Your task to perform on an android device: Add "amazon basics triple a" to the cart on costco, then select checkout. Image 0: 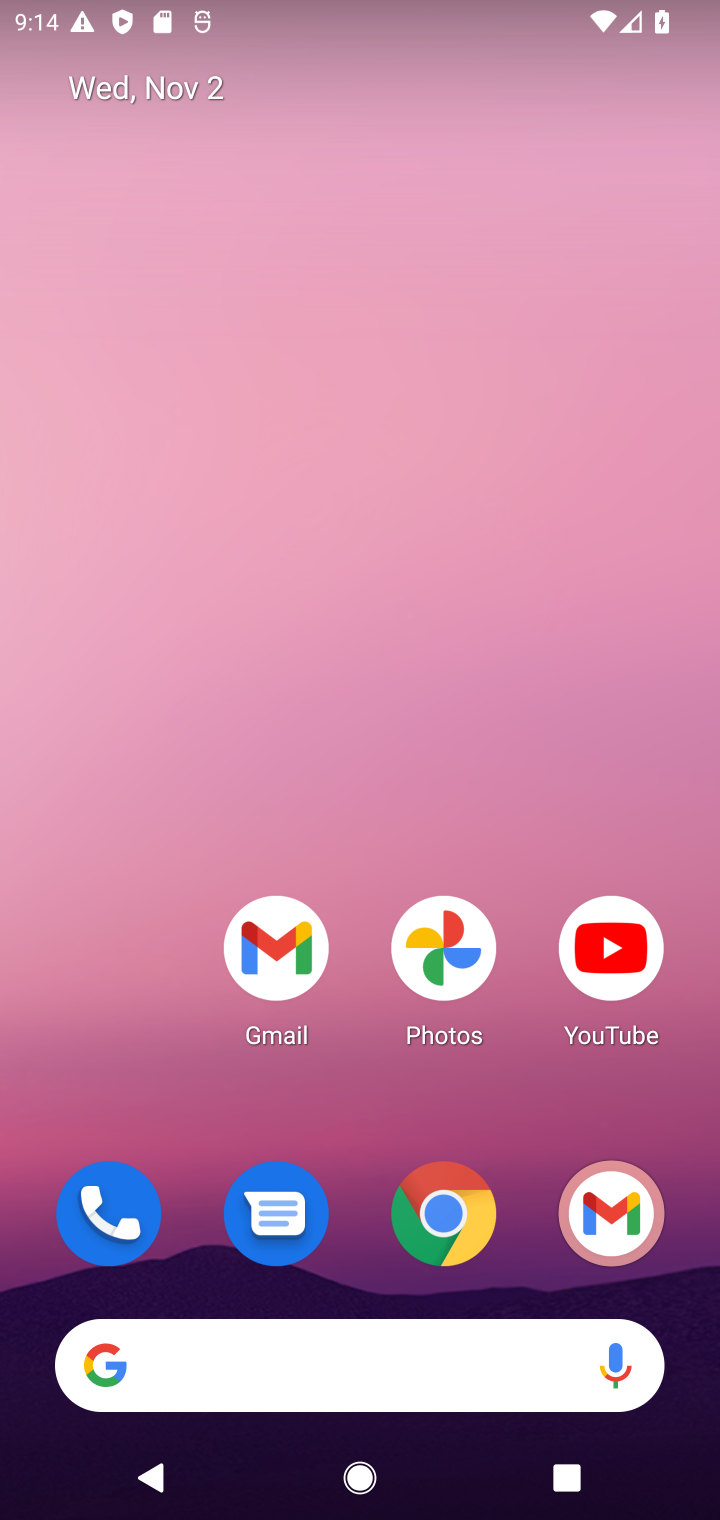
Step 0: click (451, 1209)
Your task to perform on an android device: Add "amazon basics triple a" to the cart on costco, then select checkout. Image 1: 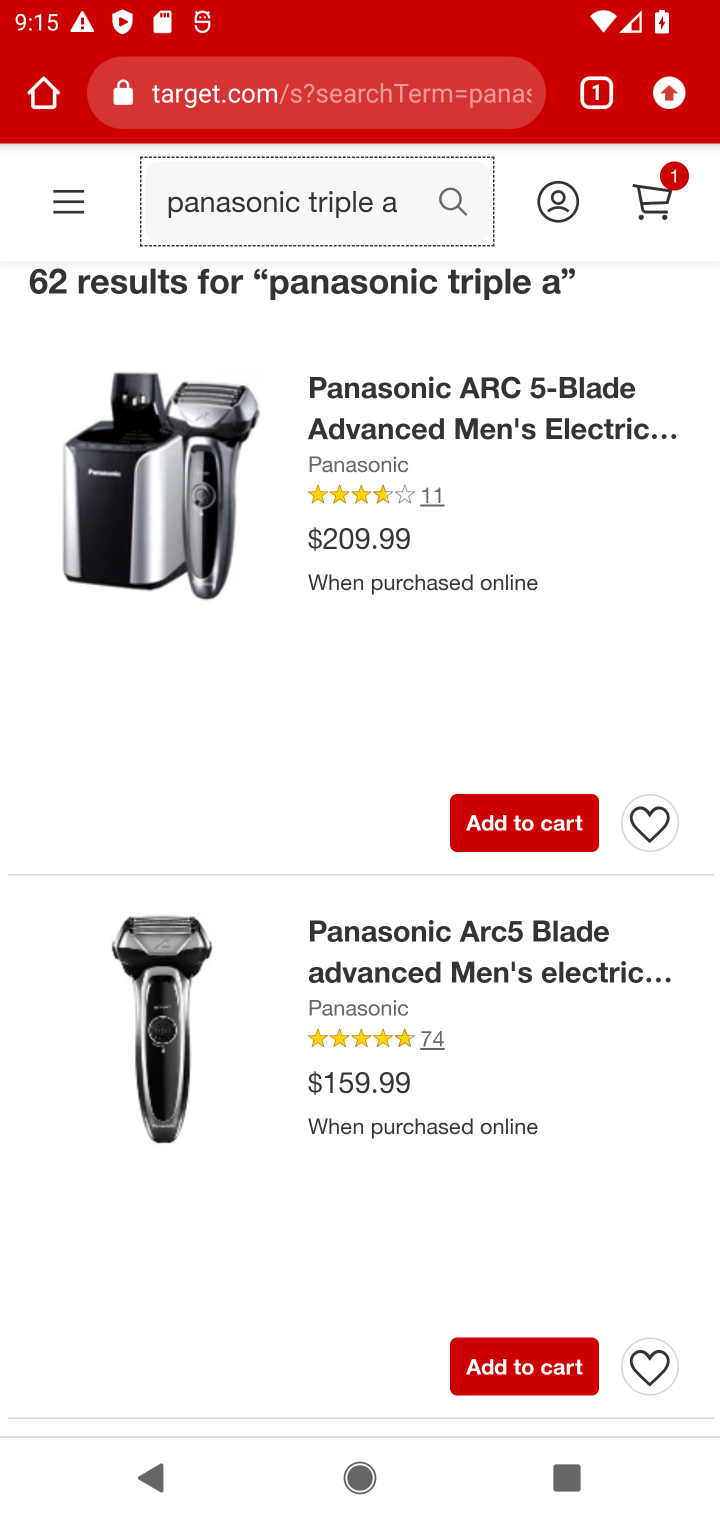
Step 1: click (267, 113)
Your task to perform on an android device: Add "amazon basics triple a" to the cart on costco, then select checkout. Image 2: 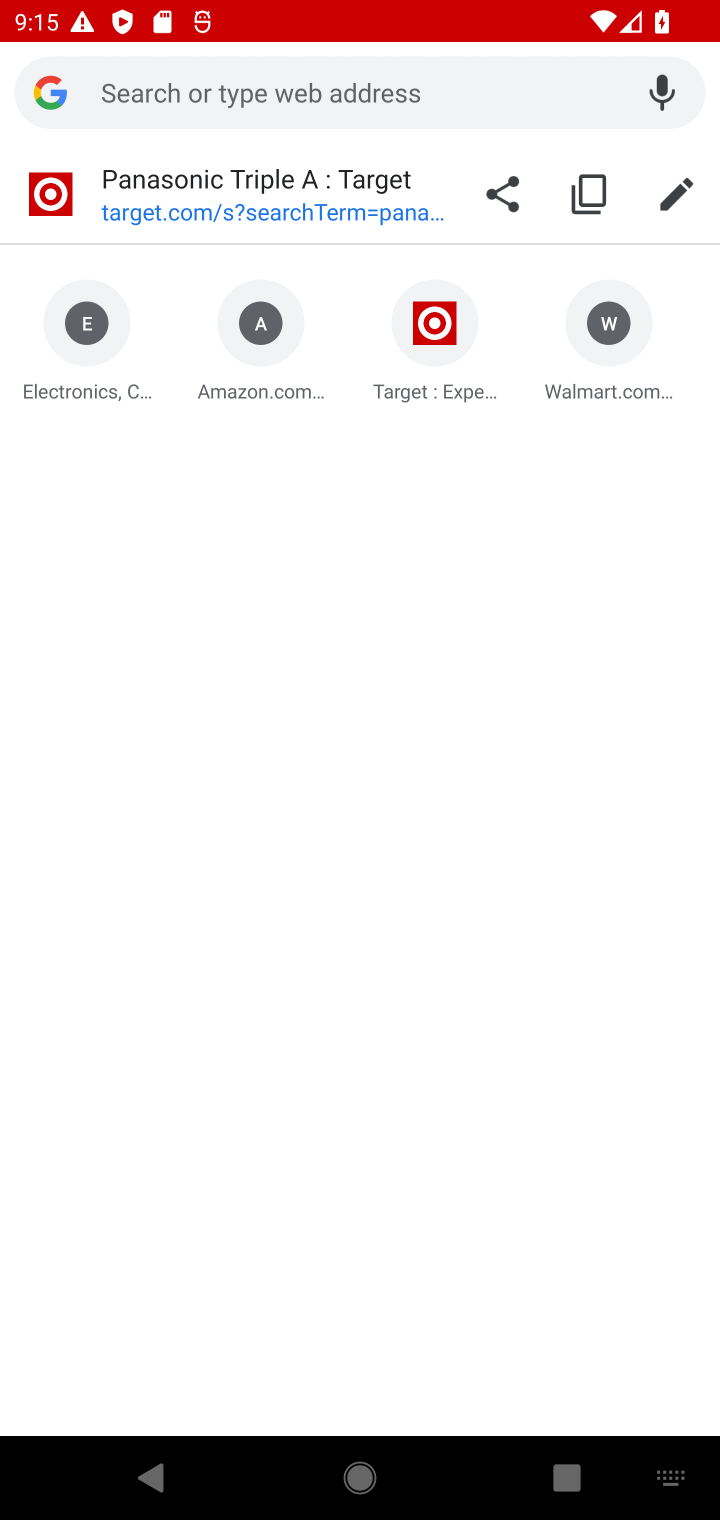
Step 2: type "costco.com"
Your task to perform on an android device: Add "amazon basics triple a" to the cart on costco, then select checkout. Image 3: 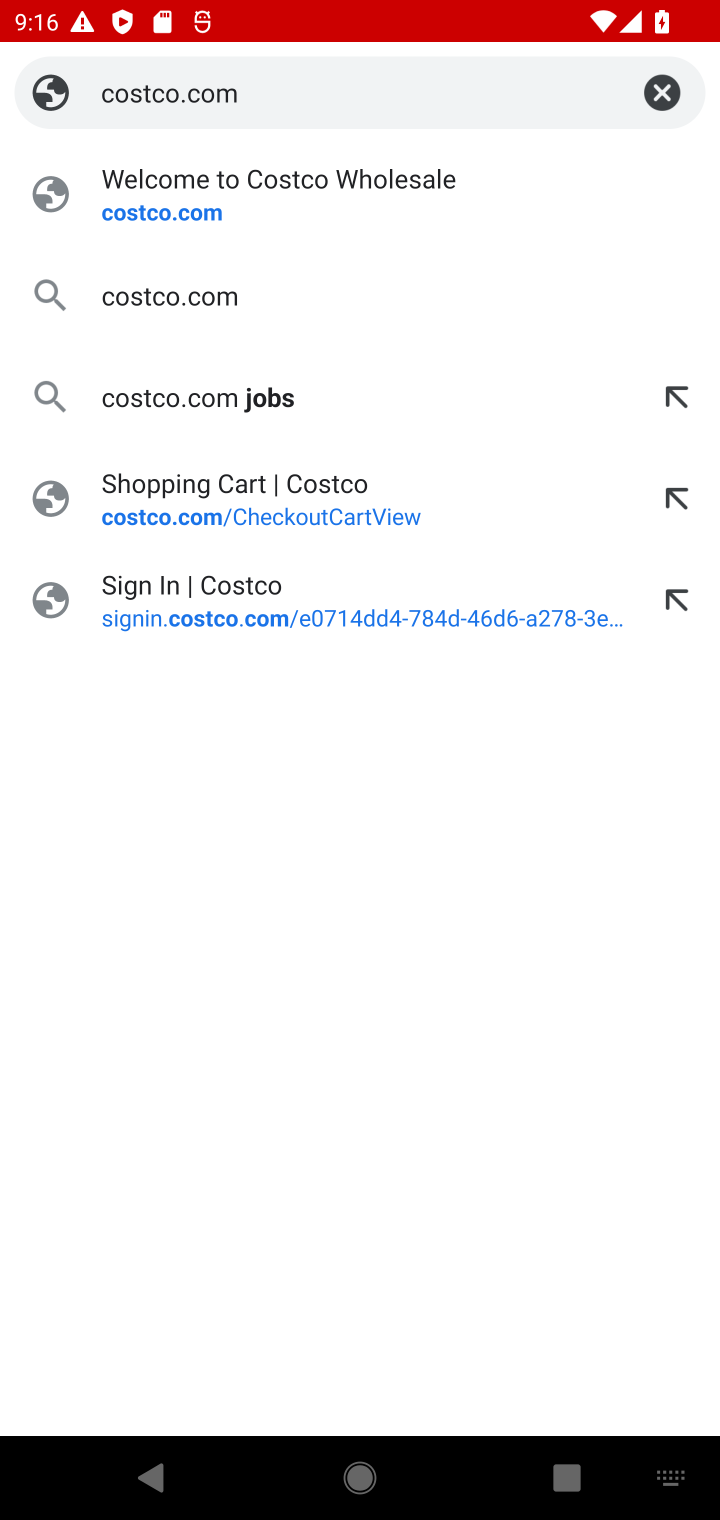
Step 3: click (136, 209)
Your task to perform on an android device: Add "amazon basics triple a" to the cart on costco, then select checkout. Image 4: 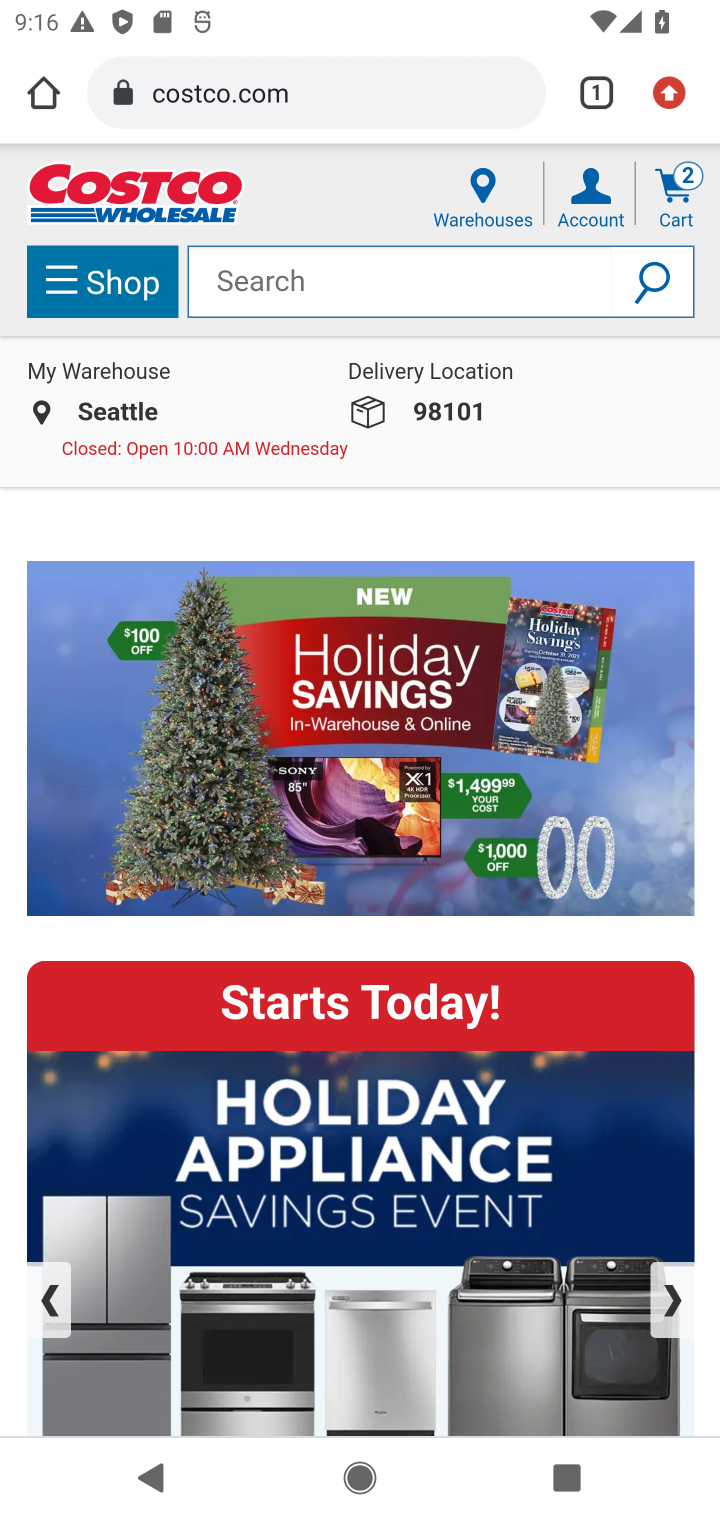
Step 4: click (260, 278)
Your task to perform on an android device: Add "amazon basics triple a" to the cart on costco, then select checkout. Image 5: 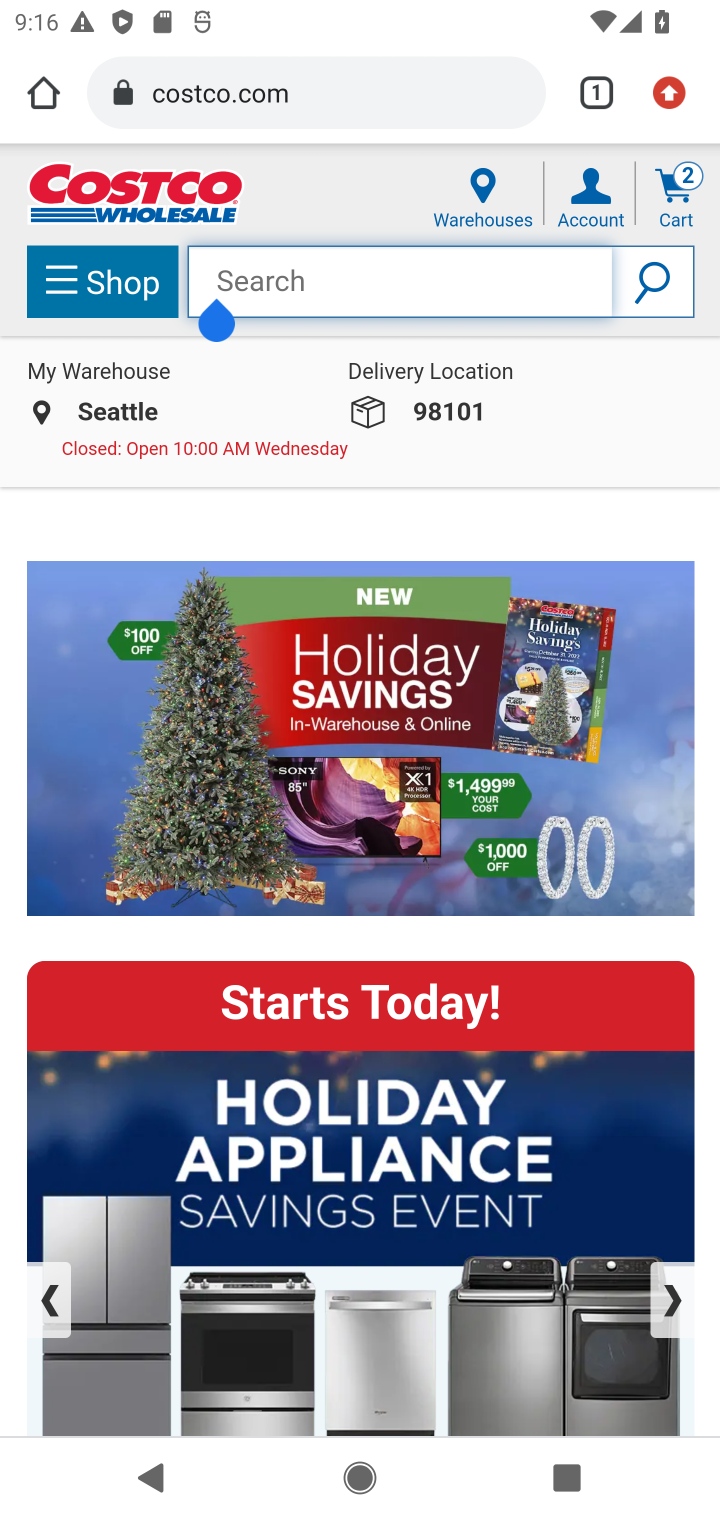
Step 5: type "amazon basics triple a"
Your task to perform on an android device: Add "amazon basics triple a" to the cart on costco, then select checkout. Image 6: 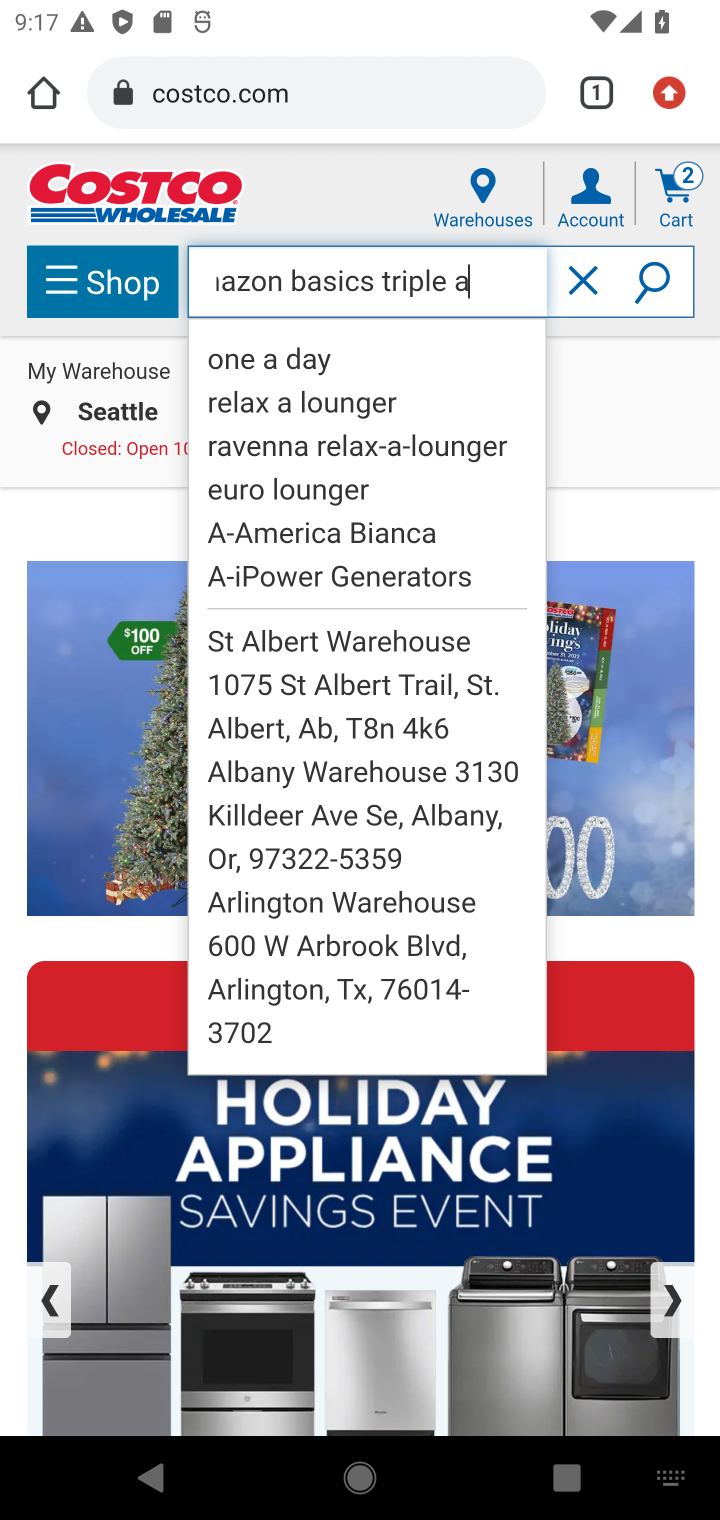
Step 6: click (666, 292)
Your task to perform on an android device: Add "amazon basics triple a" to the cart on costco, then select checkout. Image 7: 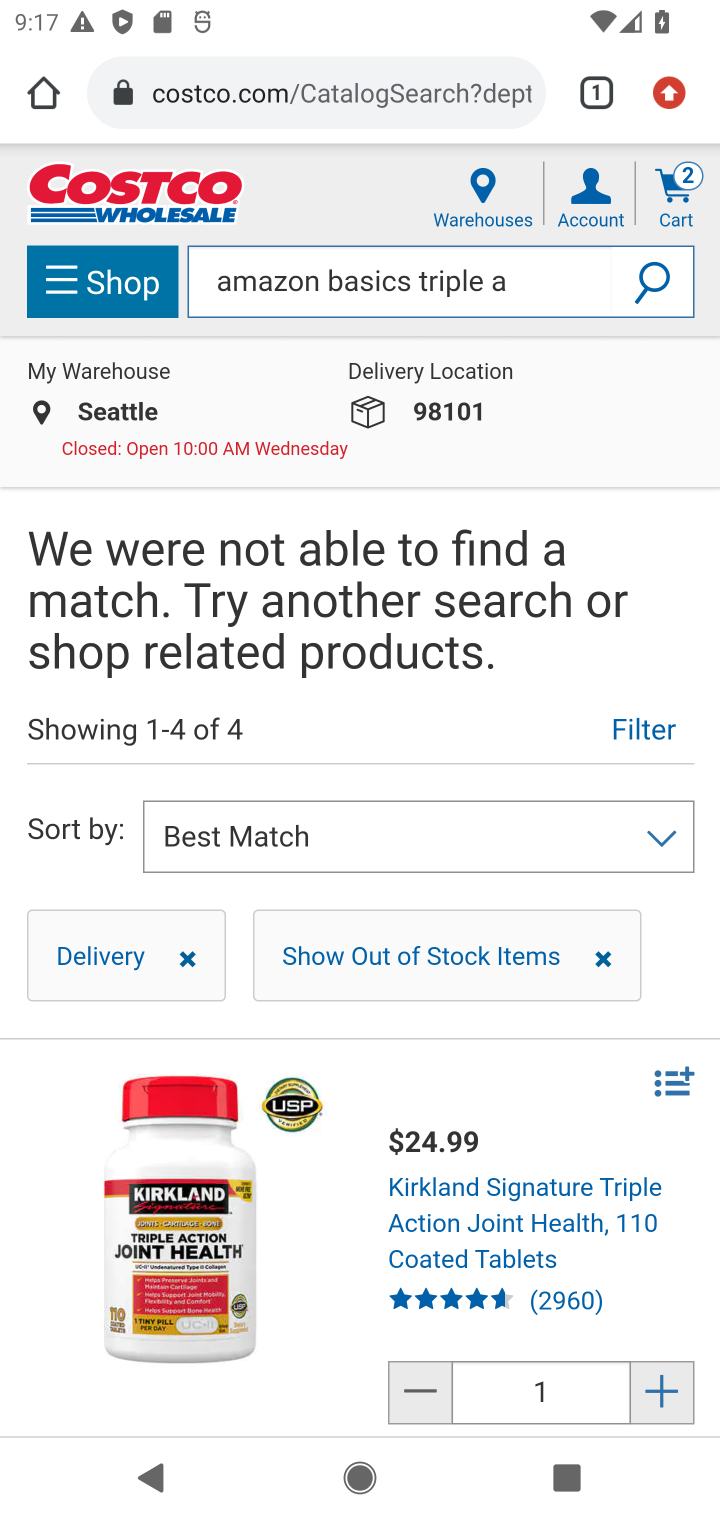
Step 7: task complete